Your task to perform on an android device: Open Youtube and go to the subscriptions tab Image 0: 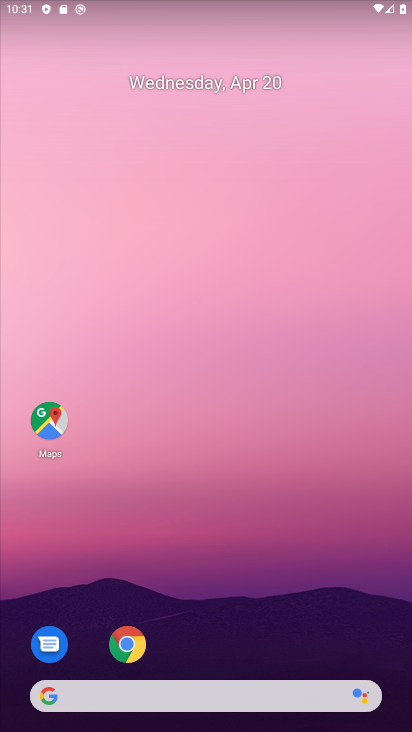
Step 0: drag from (203, 388) to (239, 85)
Your task to perform on an android device: Open Youtube and go to the subscriptions tab Image 1: 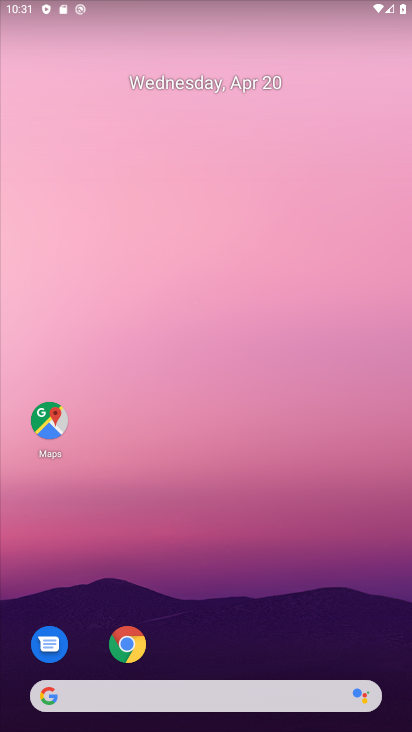
Step 1: drag from (212, 473) to (255, 11)
Your task to perform on an android device: Open Youtube and go to the subscriptions tab Image 2: 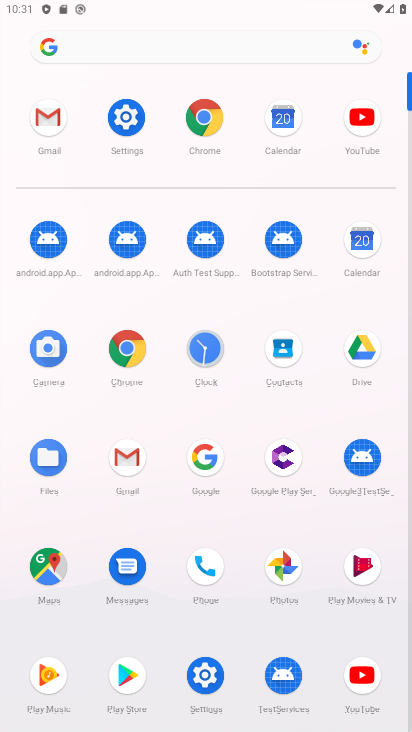
Step 2: click (357, 120)
Your task to perform on an android device: Open Youtube and go to the subscriptions tab Image 3: 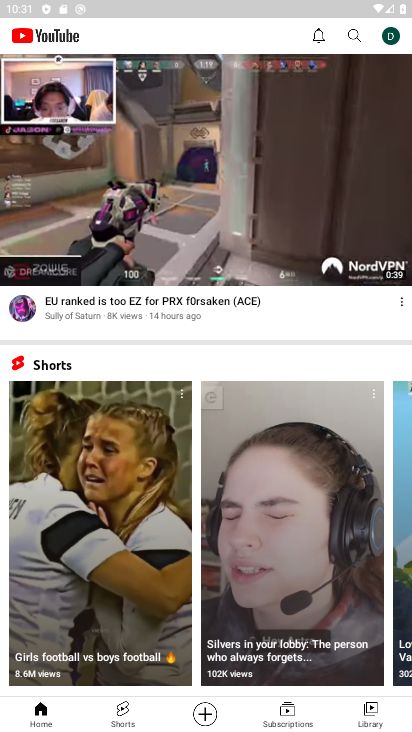
Step 3: click (287, 714)
Your task to perform on an android device: Open Youtube and go to the subscriptions tab Image 4: 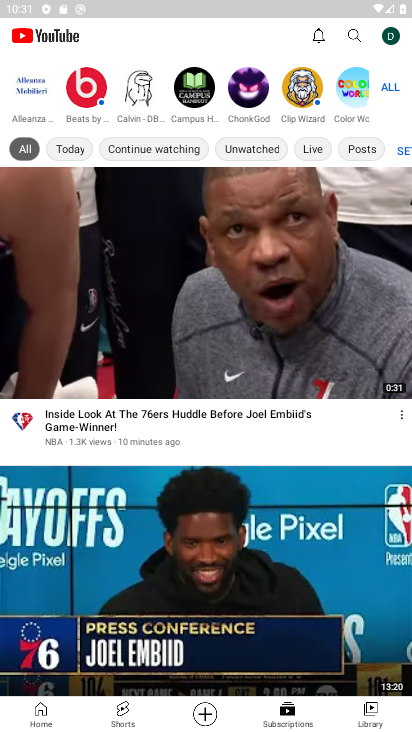
Step 4: task complete